Your task to perform on an android device: change timer sound Image 0: 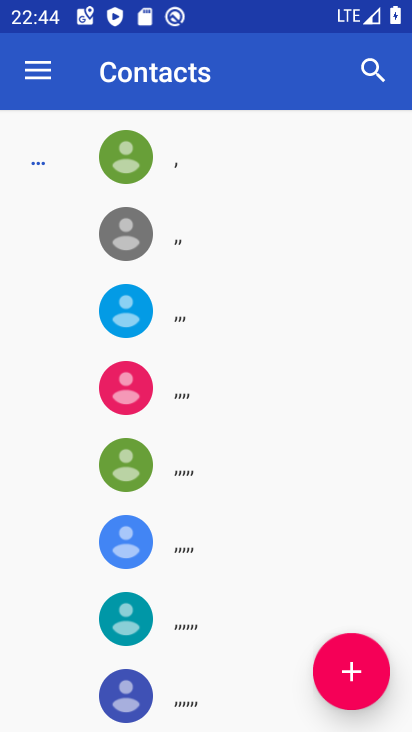
Step 0: press home button
Your task to perform on an android device: change timer sound Image 1: 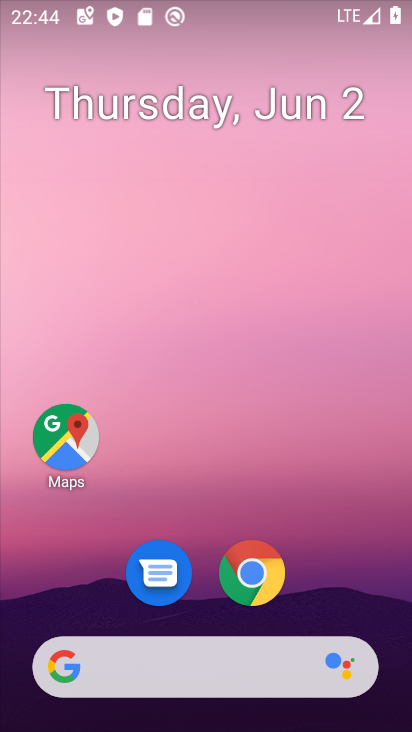
Step 1: drag from (326, 585) to (319, 56)
Your task to perform on an android device: change timer sound Image 2: 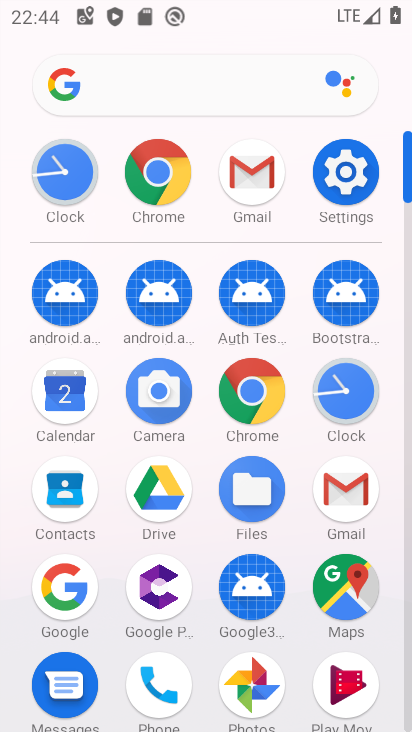
Step 2: click (343, 369)
Your task to perform on an android device: change timer sound Image 3: 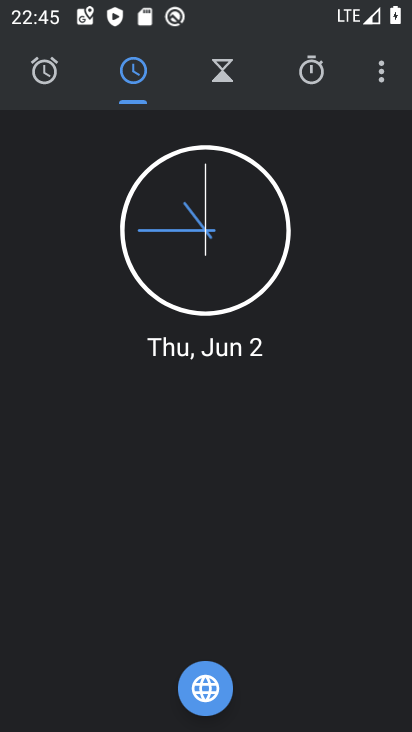
Step 3: click (384, 69)
Your task to perform on an android device: change timer sound Image 4: 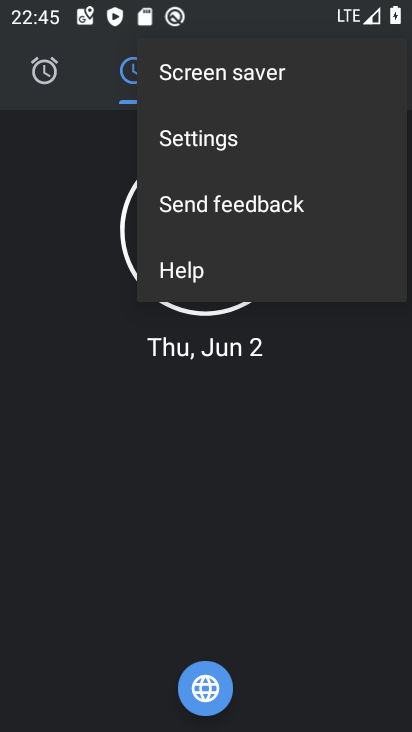
Step 4: click (252, 147)
Your task to perform on an android device: change timer sound Image 5: 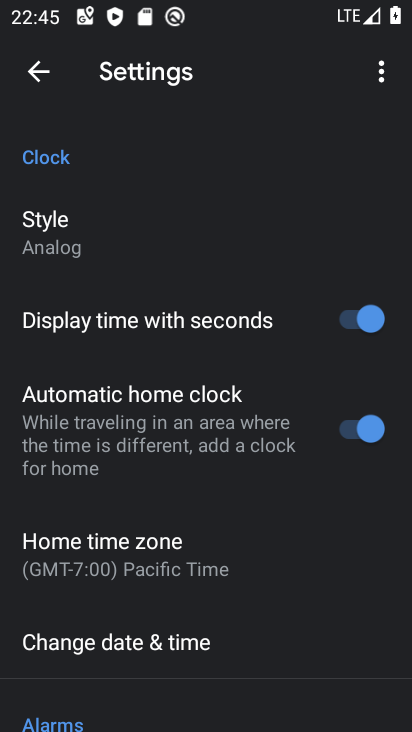
Step 5: drag from (259, 633) to (268, 179)
Your task to perform on an android device: change timer sound Image 6: 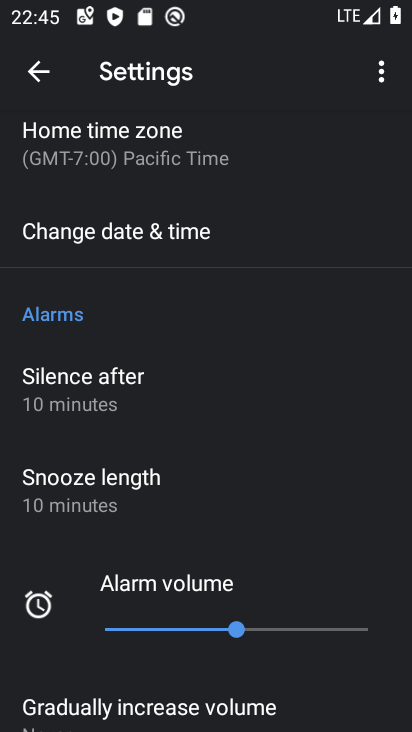
Step 6: drag from (254, 536) to (284, 142)
Your task to perform on an android device: change timer sound Image 7: 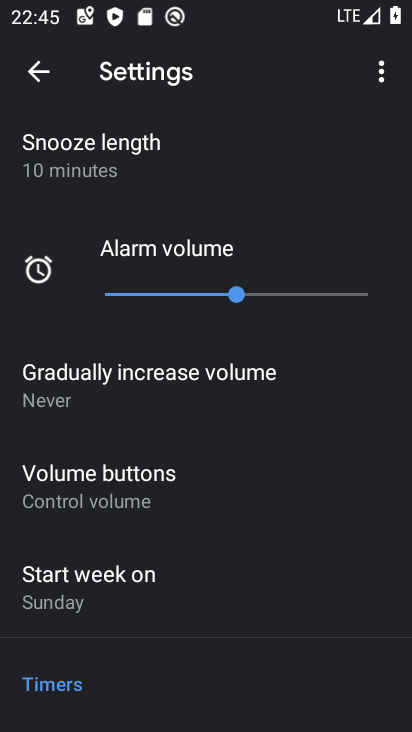
Step 7: drag from (275, 507) to (323, 90)
Your task to perform on an android device: change timer sound Image 8: 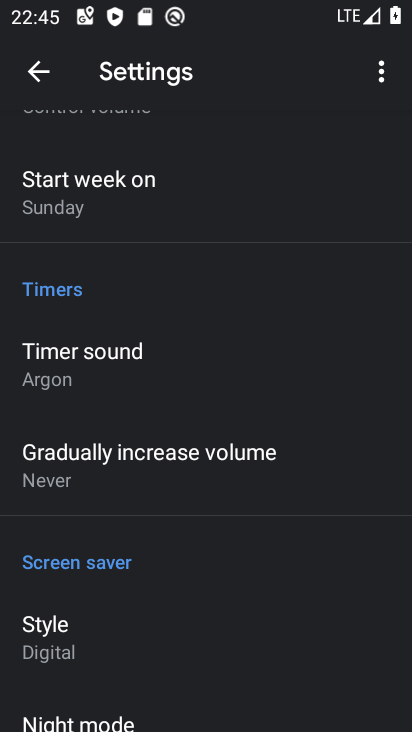
Step 8: click (148, 351)
Your task to perform on an android device: change timer sound Image 9: 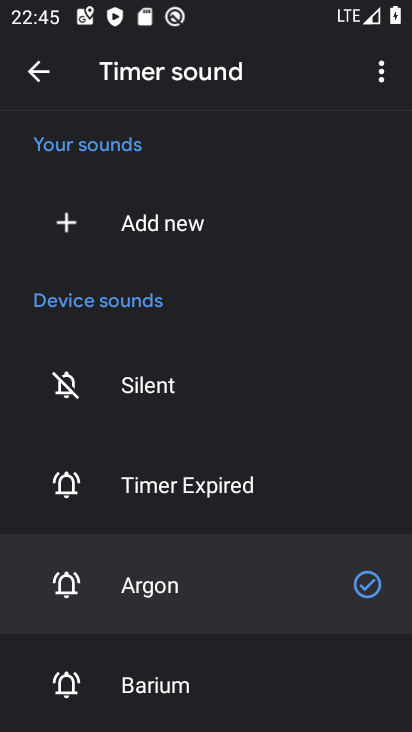
Step 9: click (161, 668)
Your task to perform on an android device: change timer sound Image 10: 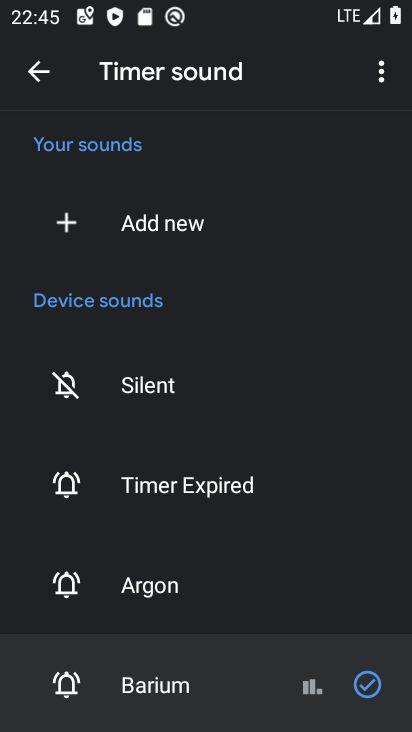
Step 10: task complete